Your task to perform on an android device: change your default location settings in chrome Image 0: 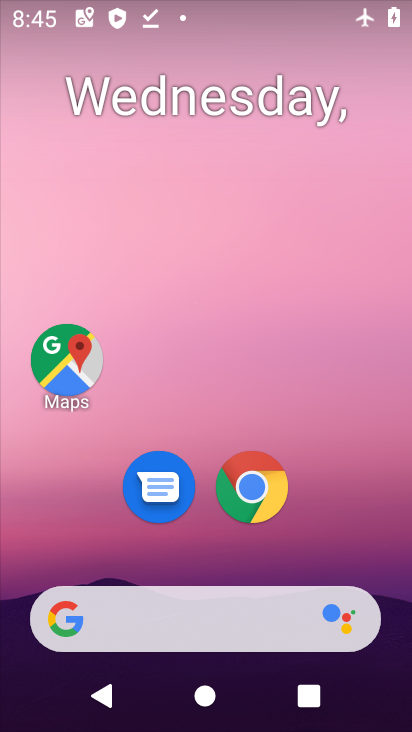
Step 0: drag from (225, 639) to (130, 211)
Your task to perform on an android device: change your default location settings in chrome Image 1: 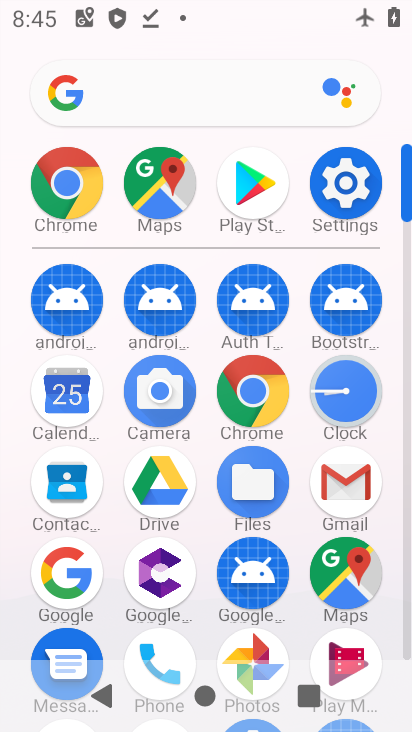
Step 1: click (240, 407)
Your task to perform on an android device: change your default location settings in chrome Image 2: 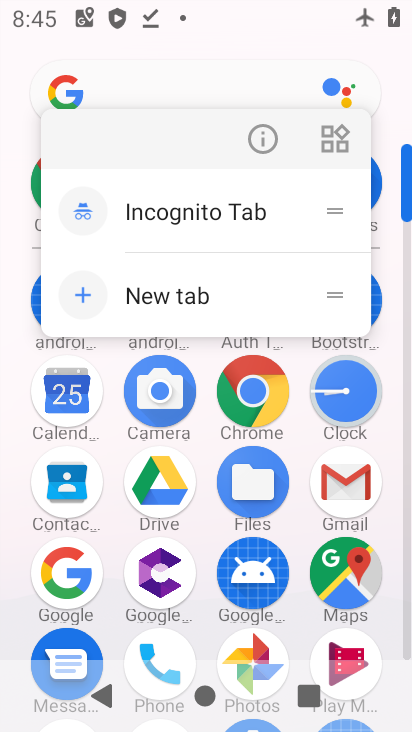
Step 2: click (256, 400)
Your task to perform on an android device: change your default location settings in chrome Image 3: 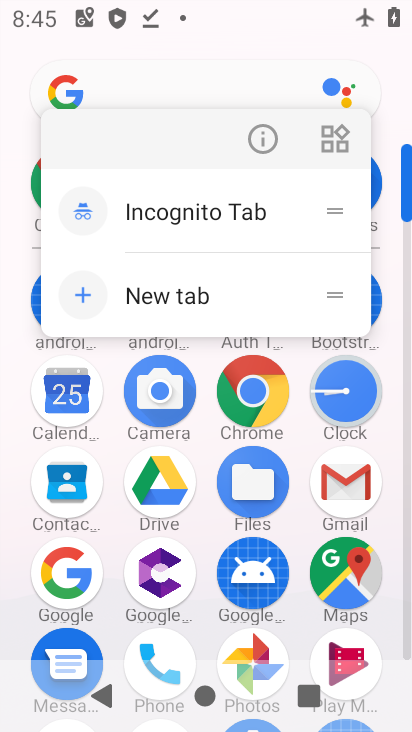
Step 3: click (256, 400)
Your task to perform on an android device: change your default location settings in chrome Image 4: 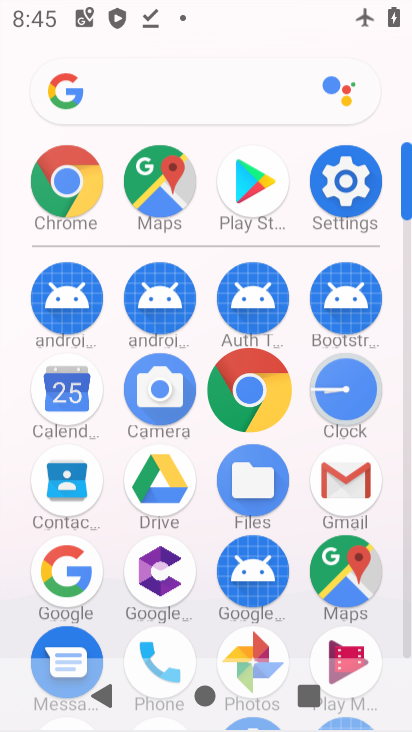
Step 4: click (256, 400)
Your task to perform on an android device: change your default location settings in chrome Image 5: 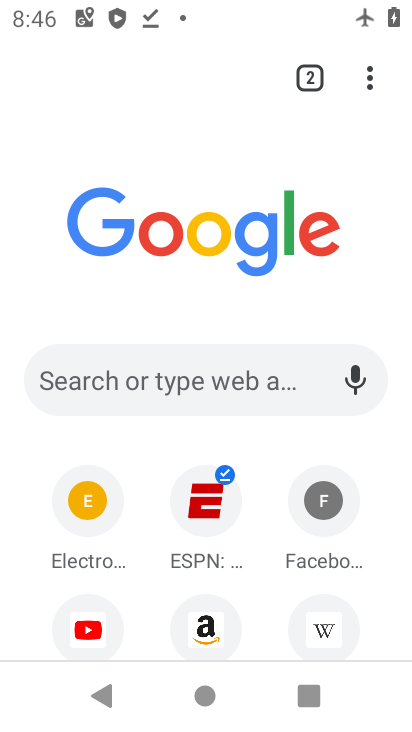
Step 5: drag from (365, 76) to (82, 550)
Your task to perform on an android device: change your default location settings in chrome Image 6: 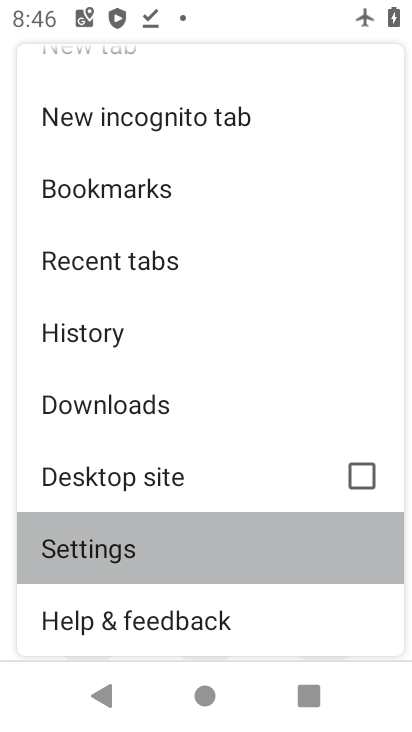
Step 6: click (87, 547)
Your task to perform on an android device: change your default location settings in chrome Image 7: 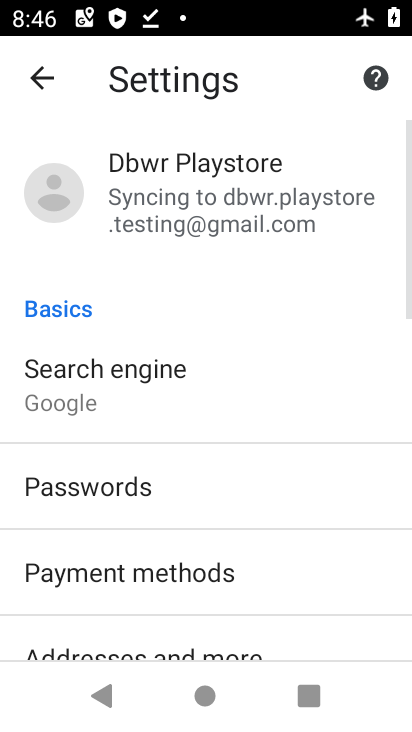
Step 7: drag from (182, 388) to (186, 19)
Your task to perform on an android device: change your default location settings in chrome Image 8: 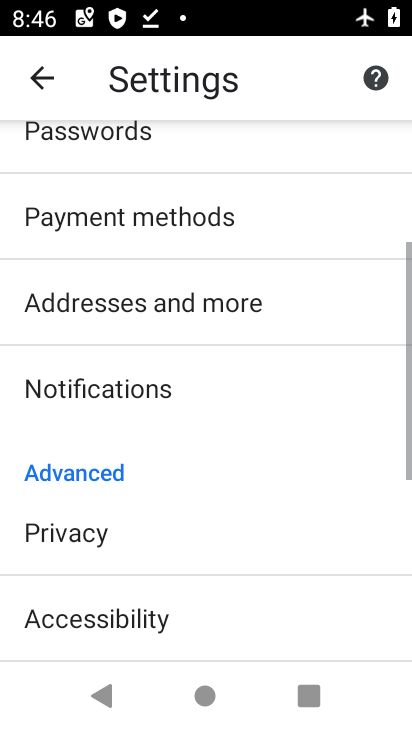
Step 8: drag from (191, 452) to (191, 38)
Your task to perform on an android device: change your default location settings in chrome Image 9: 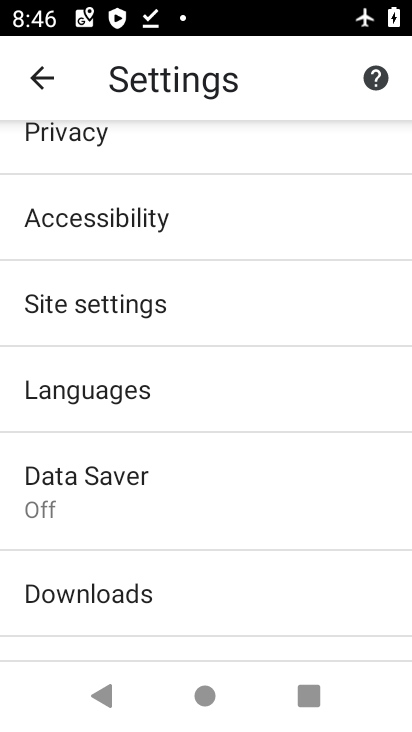
Step 9: click (76, 309)
Your task to perform on an android device: change your default location settings in chrome Image 10: 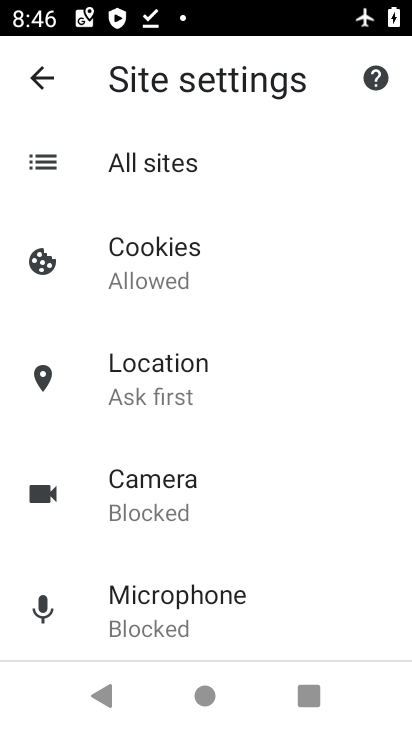
Step 10: click (146, 382)
Your task to perform on an android device: change your default location settings in chrome Image 11: 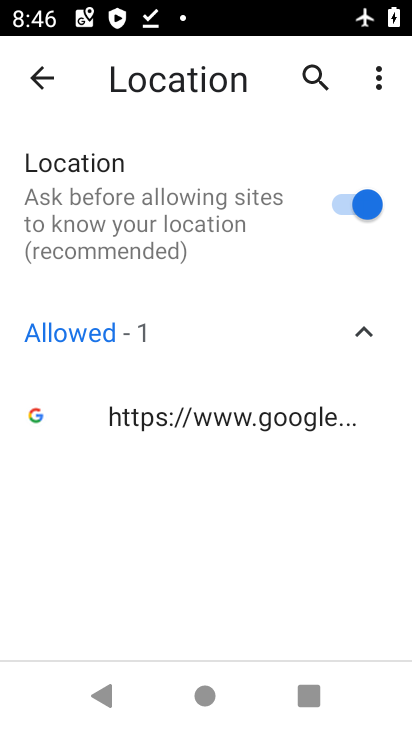
Step 11: click (353, 212)
Your task to perform on an android device: change your default location settings in chrome Image 12: 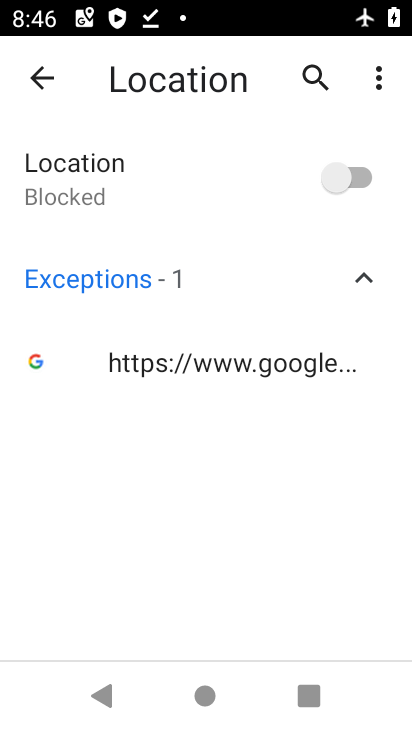
Step 12: task complete